Your task to perform on an android device: Open Google Maps Image 0: 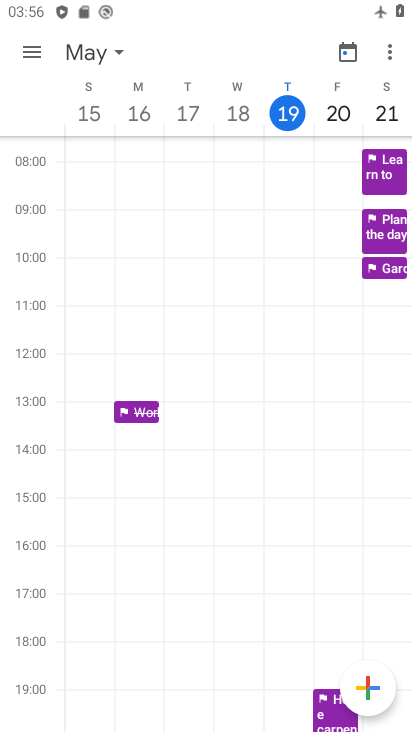
Step 0: press home button
Your task to perform on an android device: Open Google Maps Image 1: 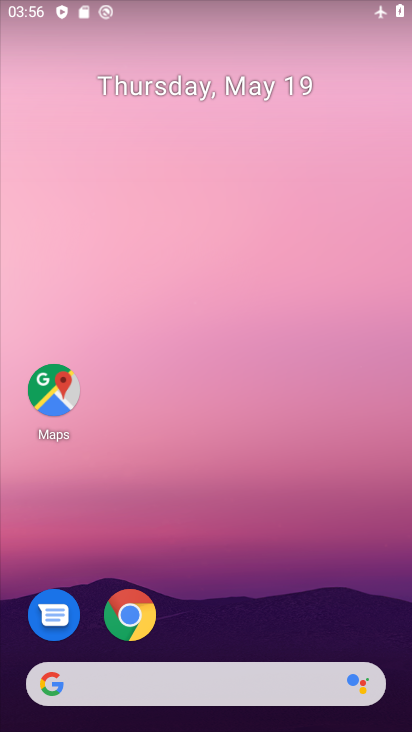
Step 1: click (51, 391)
Your task to perform on an android device: Open Google Maps Image 2: 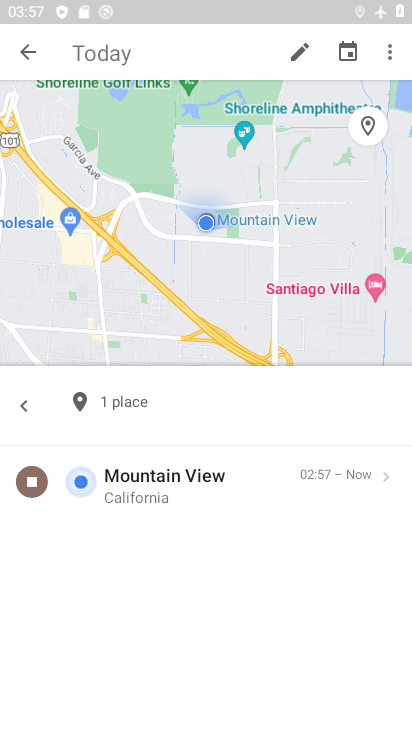
Step 2: task complete